Your task to perform on an android device: Do I have any events tomorrow? Image 0: 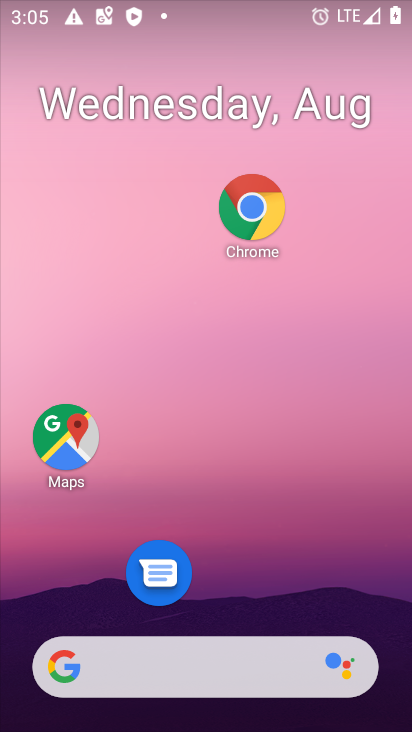
Step 0: drag from (198, 619) to (194, 186)
Your task to perform on an android device: Do I have any events tomorrow? Image 1: 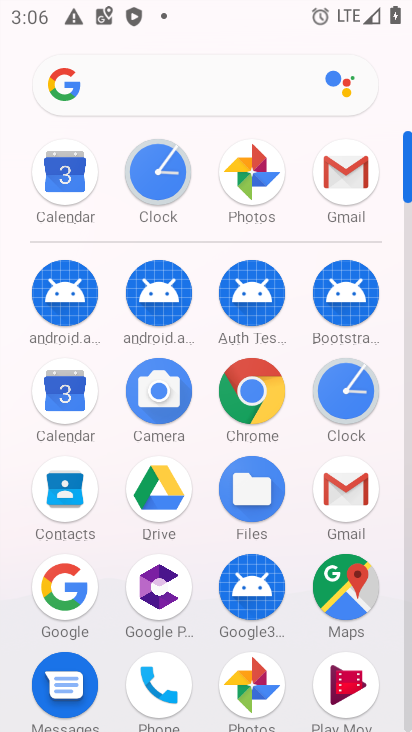
Step 1: click (69, 420)
Your task to perform on an android device: Do I have any events tomorrow? Image 2: 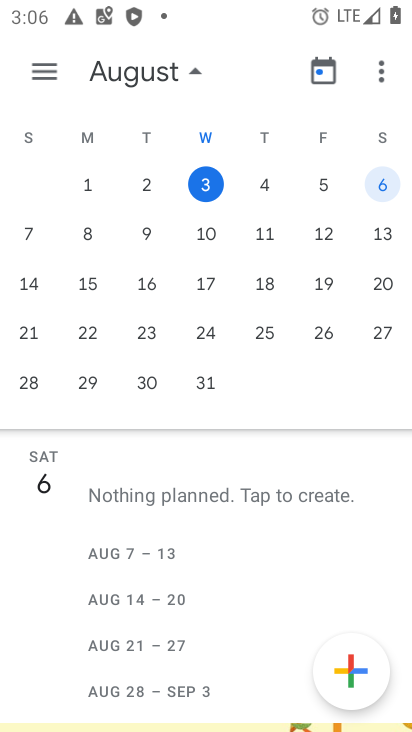
Step 2: click (267, 185)
Your task to perform on an android device: Do I have any events tomorrow? Image 3: 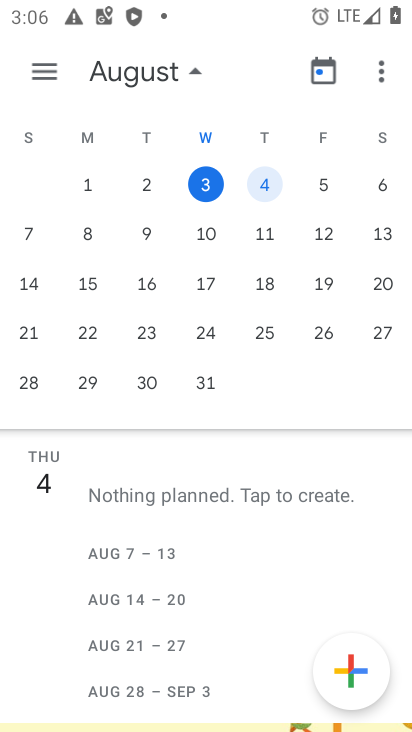
Step 3: task complete